Your task to perform on an android device: Open settings Image 0: 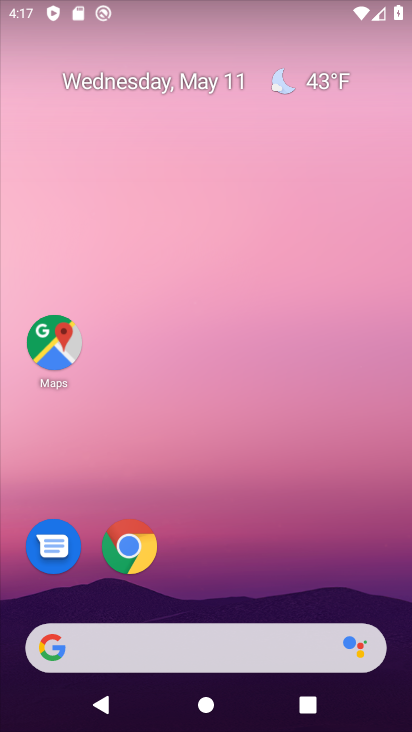
Step 0: drag from (135, 617) to (263, 91)
Your task to perform on an android device: Open settings Image 1: 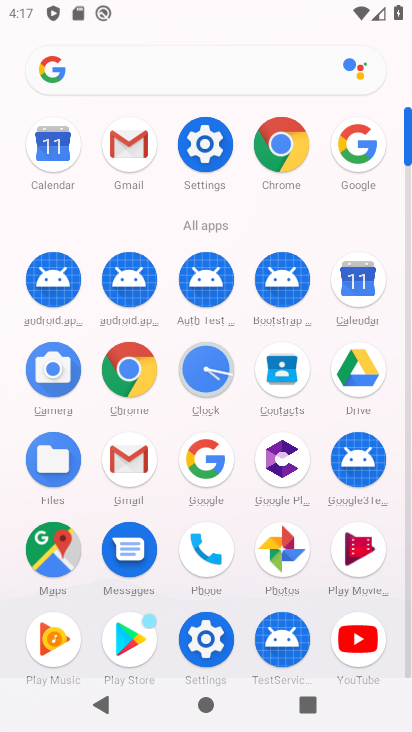
Step 1: click (205, 147)
Your task to perform on an android device: Open settings Image 2: 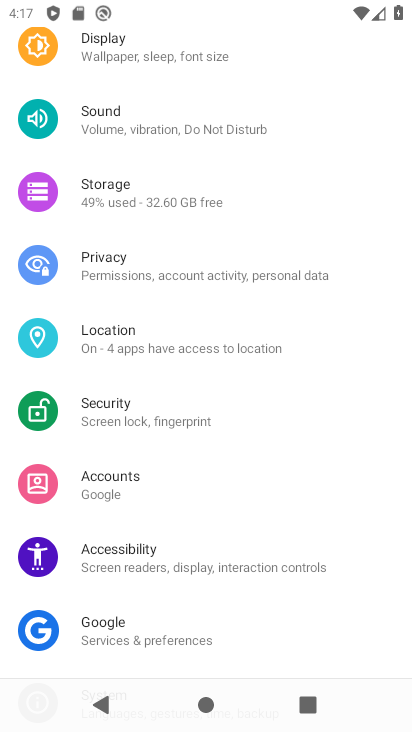
Step 2: task complete